Your task to perform on an android device: allow notifications from all sites in the chrome app Image 0: 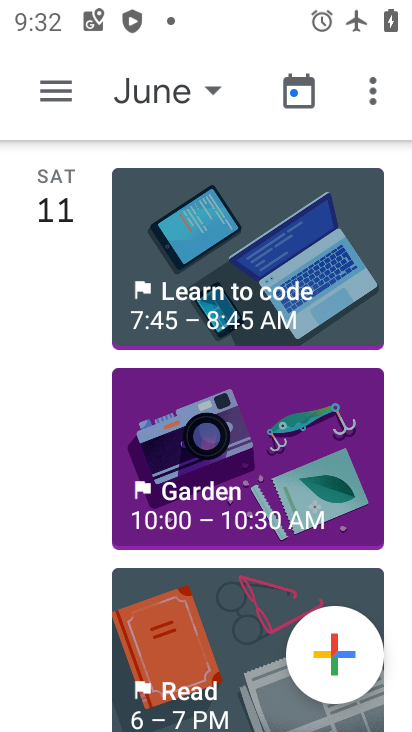
Step 0: press home button
Your task to perform on an android device: allow notifications from all sites in the chrome app Image 1: 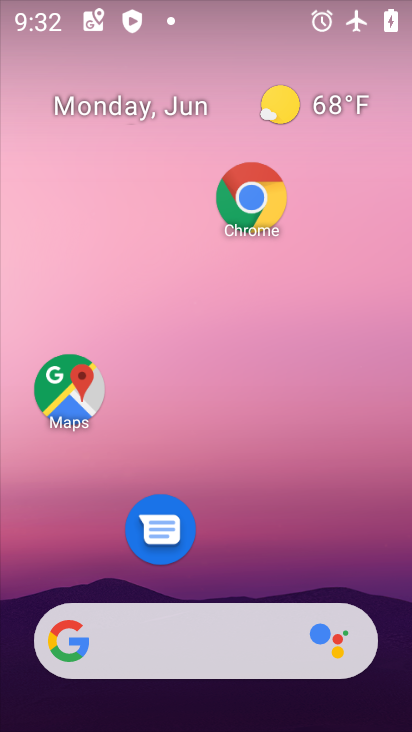
Step 1: click (261, 217)
Your task to perform on an android device: allow notifications from all sites in the chrome app Image 2: 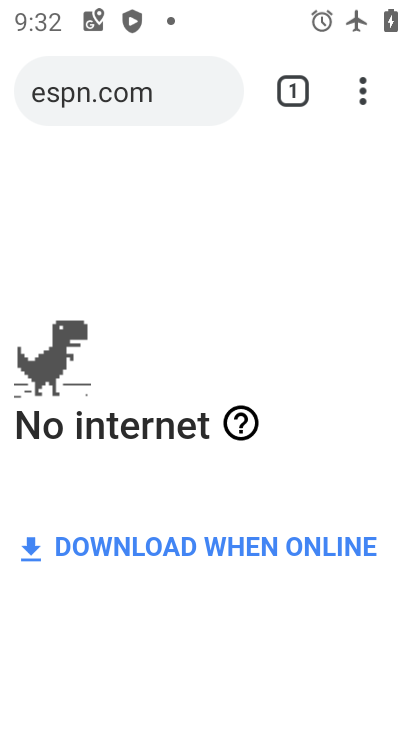
Step 2: click (371, 83)
Your task to perform on an android device: allow notifications from all sites in the chrome app Image 3: 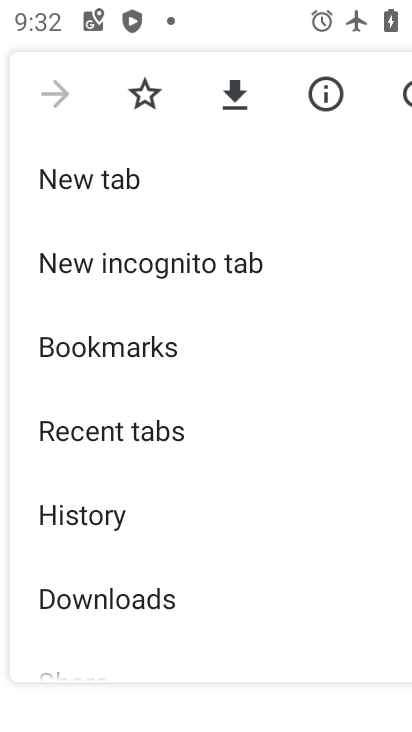
Step 3: drag from (260, 583) to (276, 326)
Your task to perform on an android device: allow notifications from all sites in the chrome app Image 4: 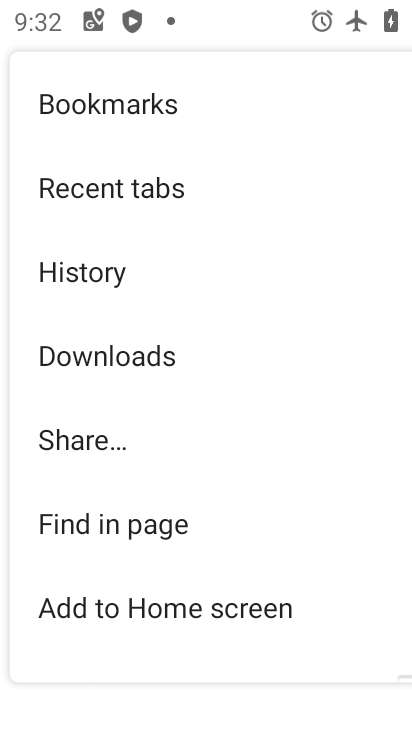
Step 4: drag from (243, 527) to (252, 285)
Your task to perform on an android device: allow notifications from all sites in the chrome app Image 5: 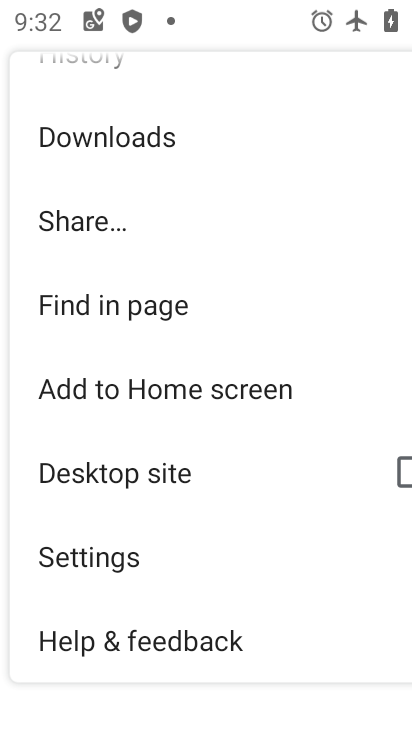
Step 5: click (140, 547)
Your task to perform on an android device: allow notifications from all sites in the chrome app Image 6: 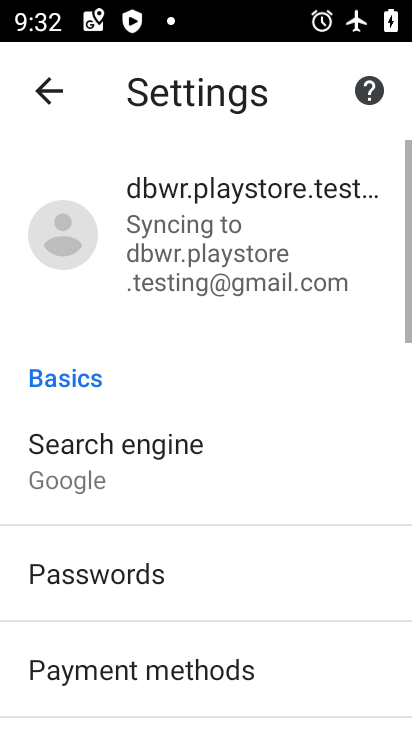
Step 6: drag from (219, 567) to (253, 177)
Your task to perform on an android device: allow notifications from all sites in the chrome app Image 7: 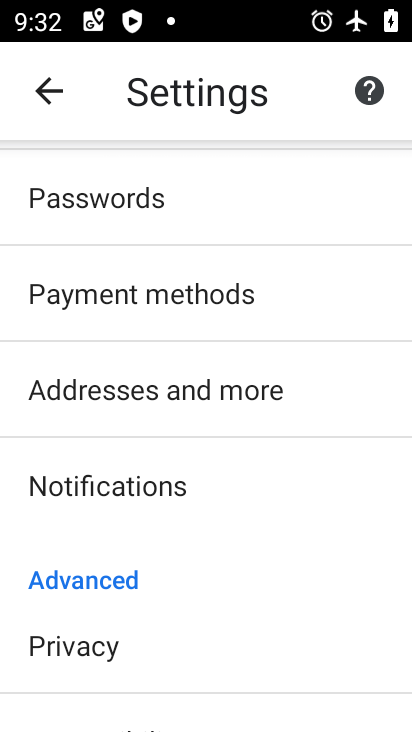
Step 7: drag from (258, 600) to (294, 238)
Your task to perform on an android device: allow notifications from all sites in the chrome app Image 8: 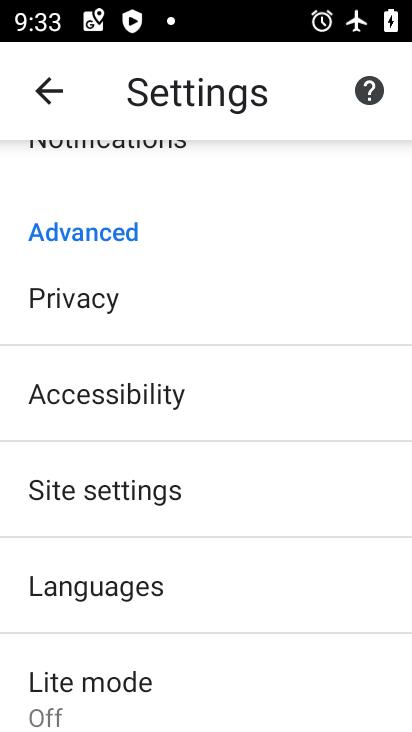
Step 8: click (196, 492)
Your task to perform on an android device: allow notifications from all sites in the chrome app Image 9: 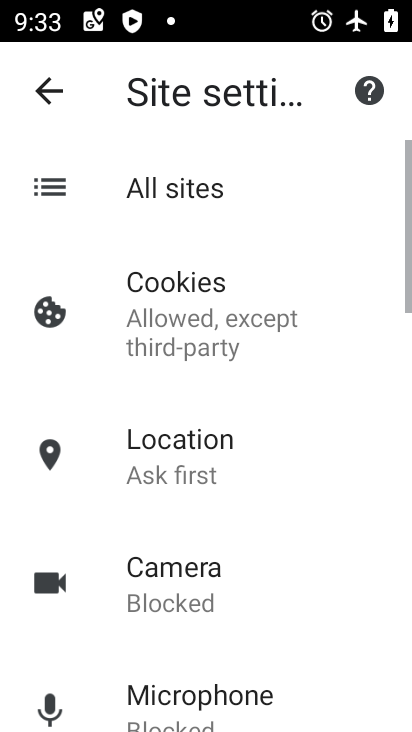
Step 9: click (174, 196)
Your task to perform on an android device: allow notifications from all sites in the chrome app Image 10: 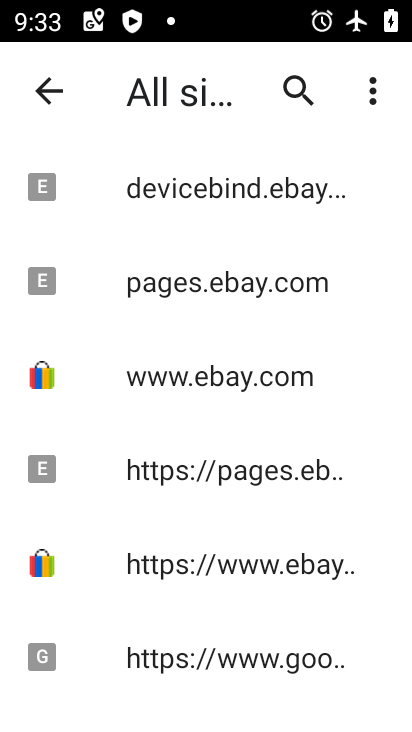
Step 10: drag from (222, 587) to (234, 279)
Your task to perform on an android device: allow notifications from all sites in the chrome app Image 11: 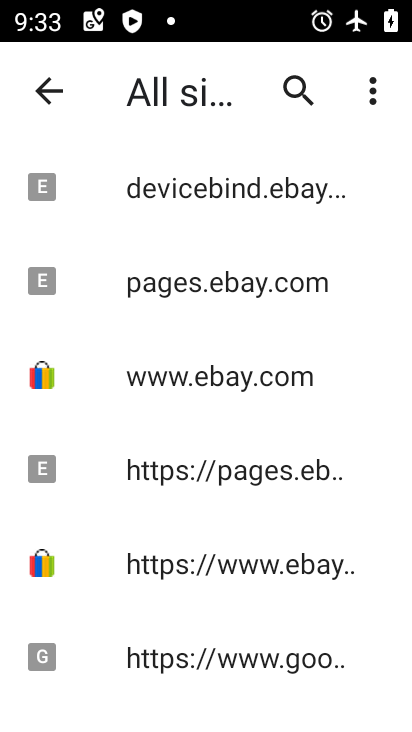
Step 11: click (264, 646)
Your task to perform on an android device: allow notifications from all sites in the chrome app Image 12: 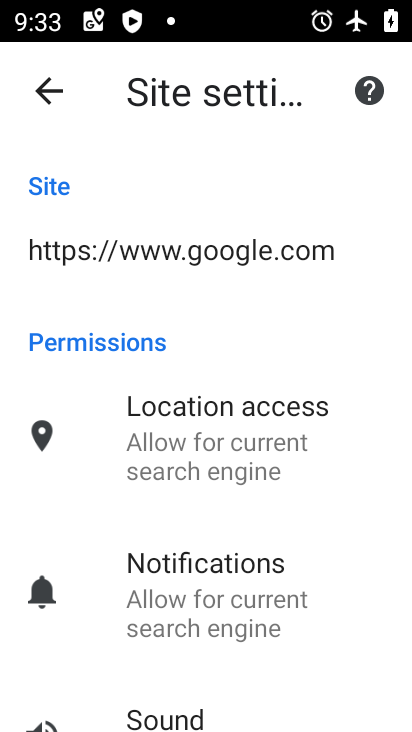
Step 12: drag from (230, 603) to (238, 428)
Your task to perform on an android device: allow notifications from all sites in the chrome app Image 13: 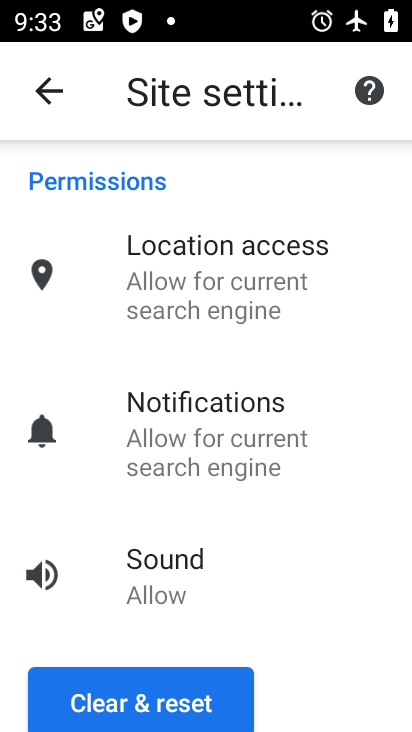
Step 13: click (235, 427)
Your task to perform on an android device: allow notifications from all sites in the chrome app Image 14: 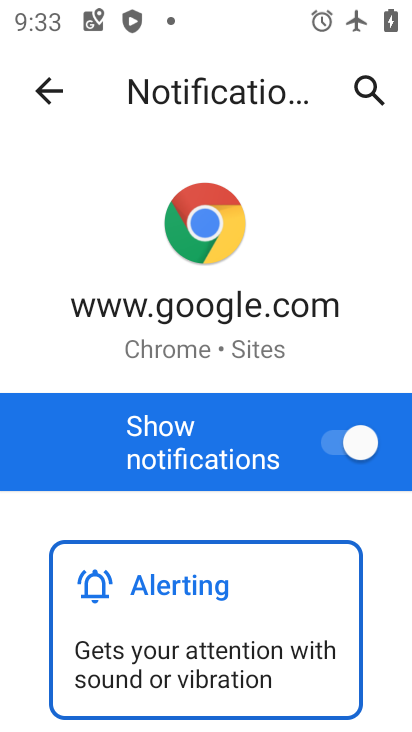
Step 14: task complete